Your task to perform on an android device: See recent photos Image 0: 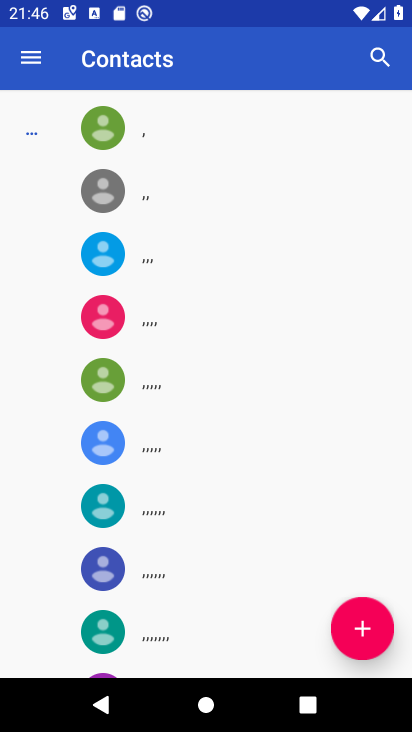
Step 0: press home button
Your task to perform on an android device: See recent photos Image 1: 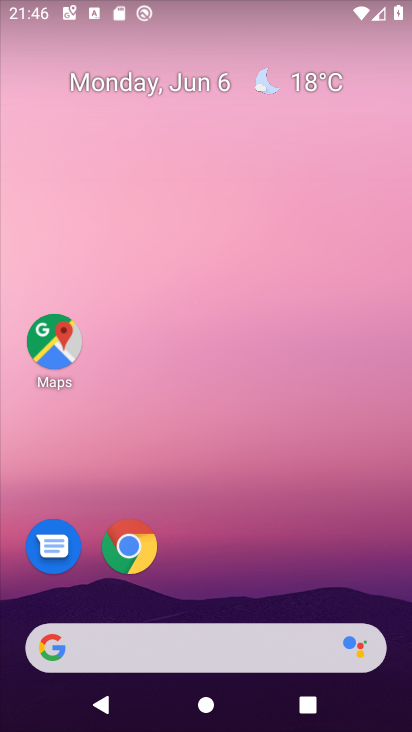
Step 1: drag from (372, 588) to (274, 110)
Your task to perform on an android device: See recent photos Image 2: 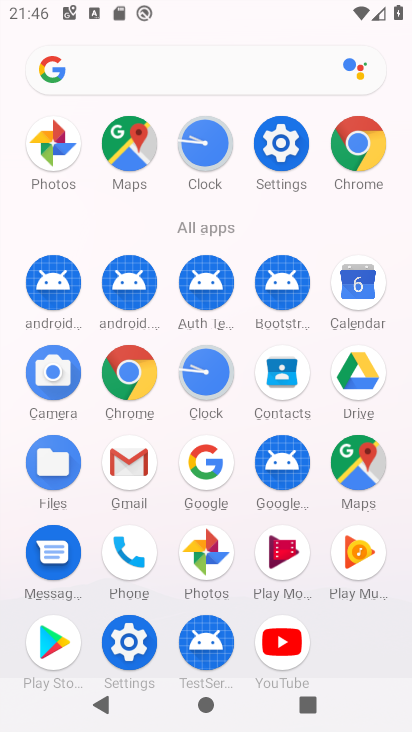
Step 2: click (208, 548)
Your task to perform on an android device: See recent photos Image 3: 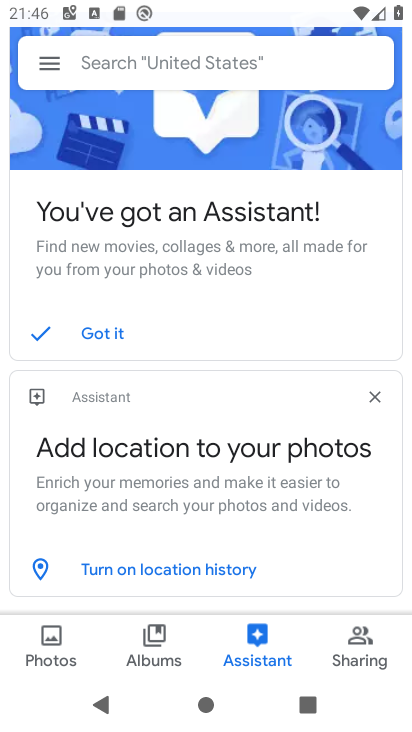
Step 3: click (64, 644)
Your task to perform on an android device: See recent photos Image 4: 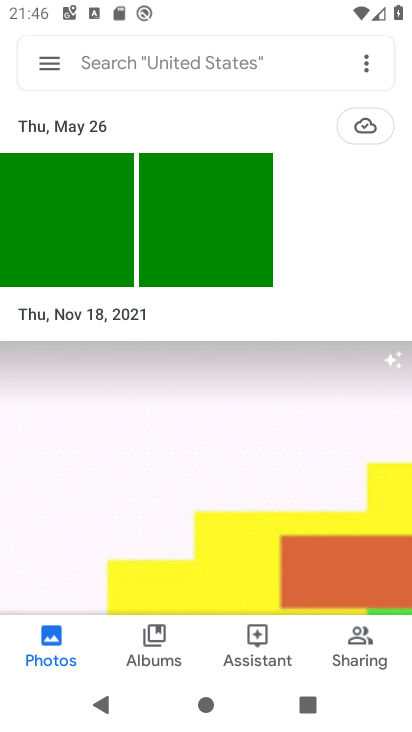
Step 4: task complete